Your task to perform on an android device: Open CNN.com Image 0: 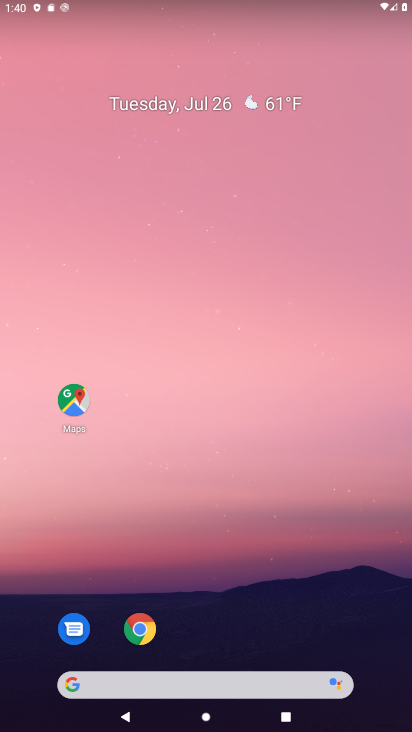
Step 0: click (138, 690)
Your task to perform on an android device: Open CNN.com Image 1: 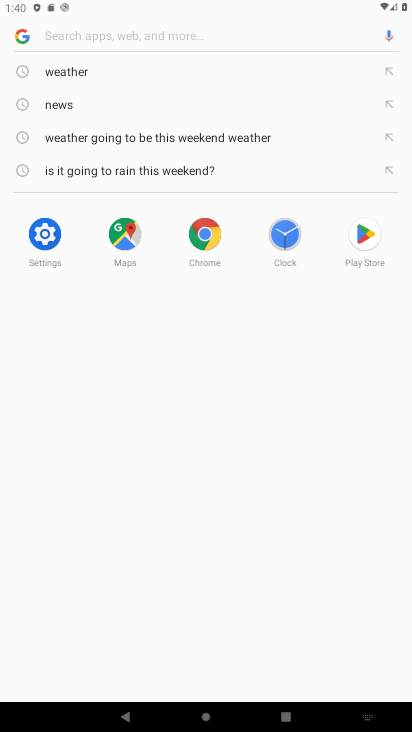
Step 1: type "cnn"
Your task to perform on an android device: Open CNN.com Image 2: 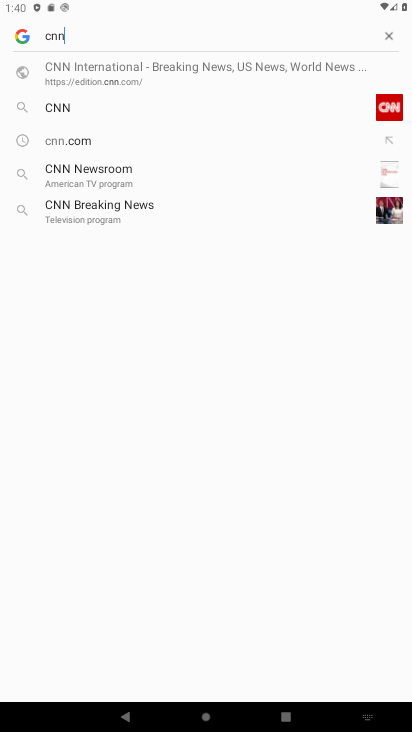
Step 2: click (151, 107)
Your task to perform on an android device: Open CNN.com Image 3: 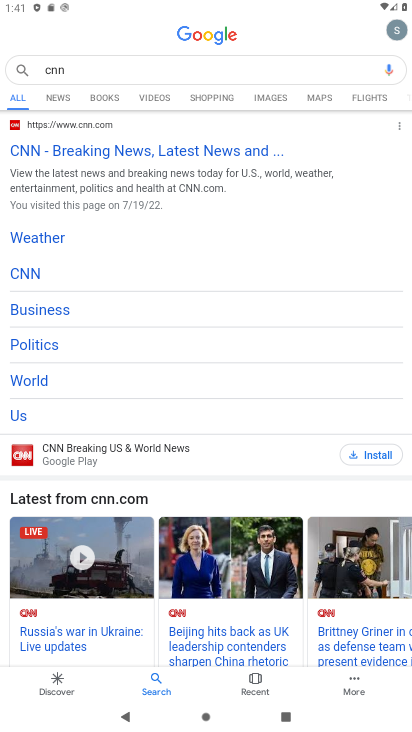
Step 3: task complete